Your task to perform on an android device: Turn on the flashlight Image 0: 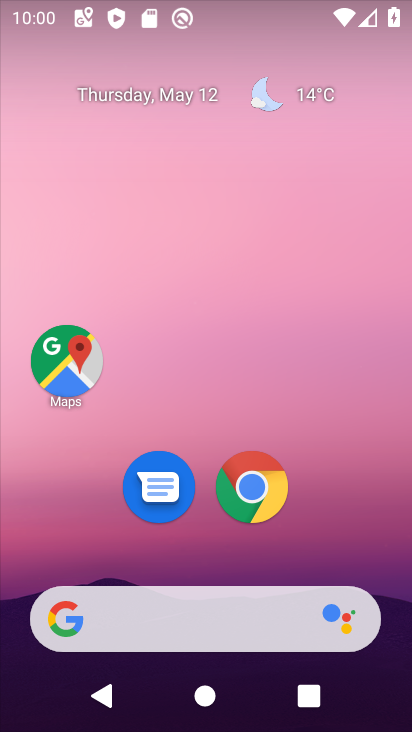
Step 0: drag from (10, 679) to (281, 183)
Your task to perform on an android device: Turn on the flashlight Image 1: 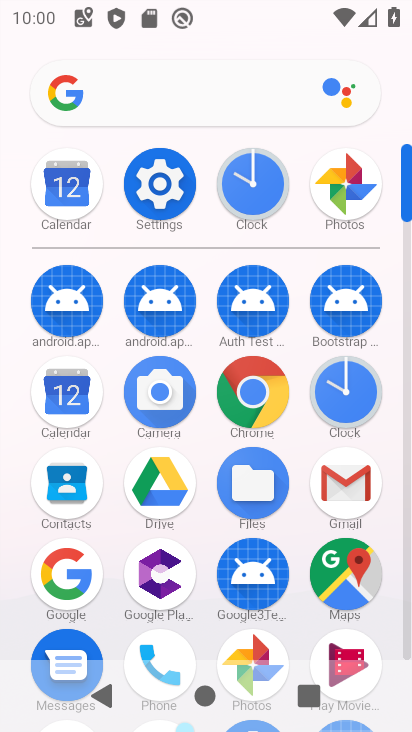
Step 1: click (173, 186)
Your task to perform on an android device: Turn on the flashlight Image 2: 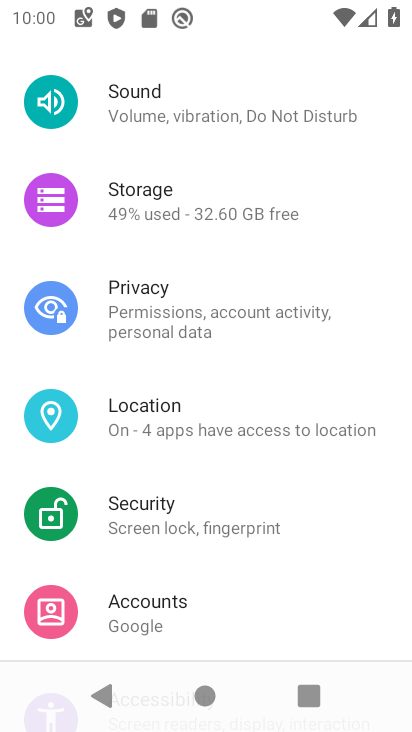
Step 2: task complete